Your task to perform on an android device: Search for seafood restaurants on Google Maps Image 0: 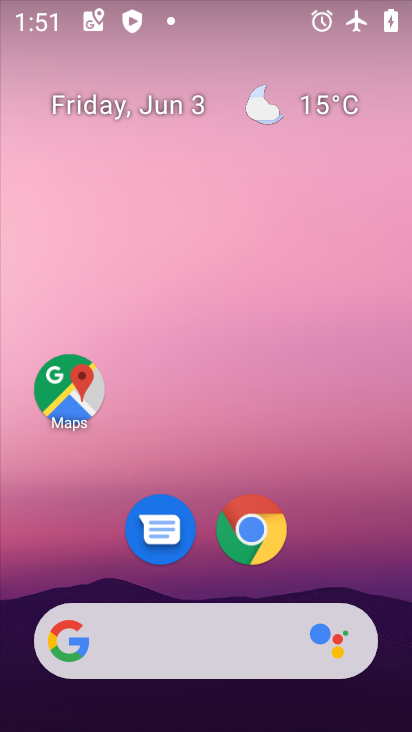
Step 0: drag from (360, 568) to (349, 183)
Your task to perform on an android device: Search for seafood restaurants on Google Maps Image 1: 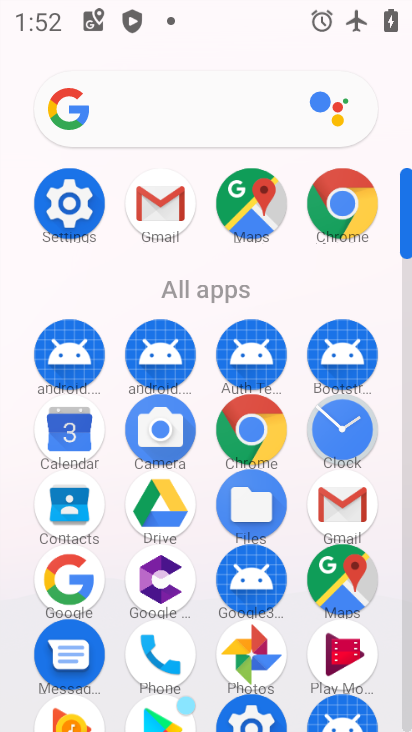
Step 1: click (259, 214)
Your task to perform on an android device: Search for seafood restaurants on Google Maps Image 2: 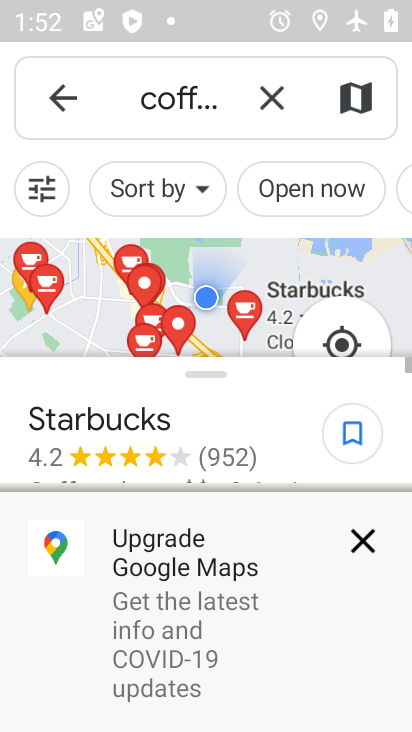
Step 2: click (276, 95)
Your task to perform on an android device: Search for seafood restaurants on Google Maps Image 3: 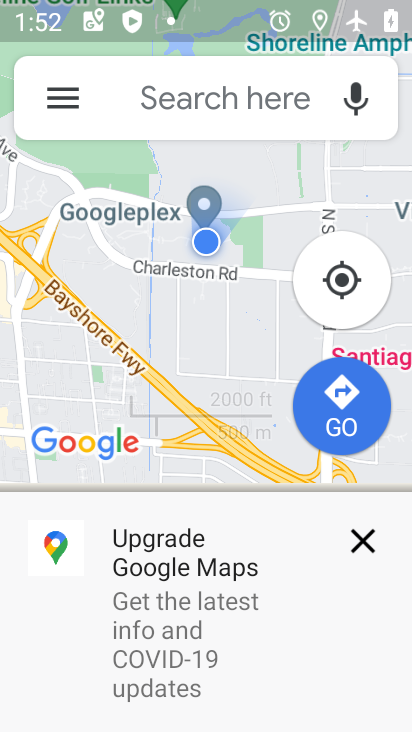
Step 3: click (251, 89)
Your task to perform on an android device: Search for seafood restaurants on Google Maps Image 4: 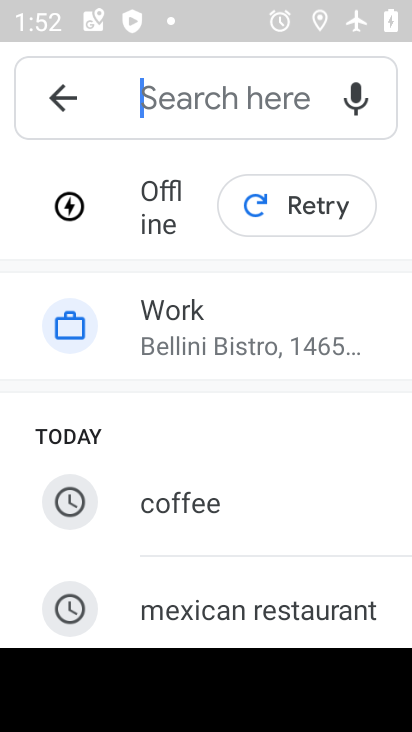
Step 4: type "seafood restaurants"
Your task to perform on an android device: Search for seafood restaurants on Google Maps Image 5: 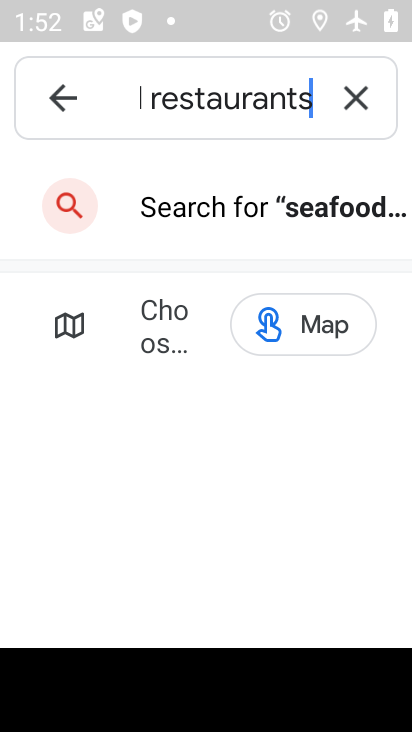
Step 5: click (305, 206)
Your task to perform on an android device: Search for seafood restaurants on Google Maps Image 6: 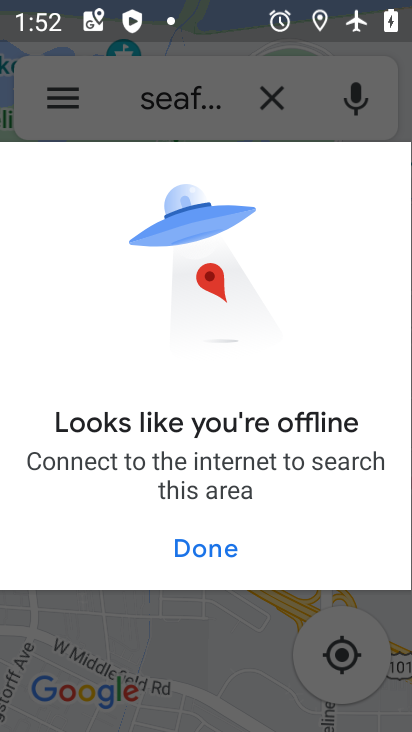
Step 6: task complete